Your task to perform on an android device: turn off airplane mode Image 0: 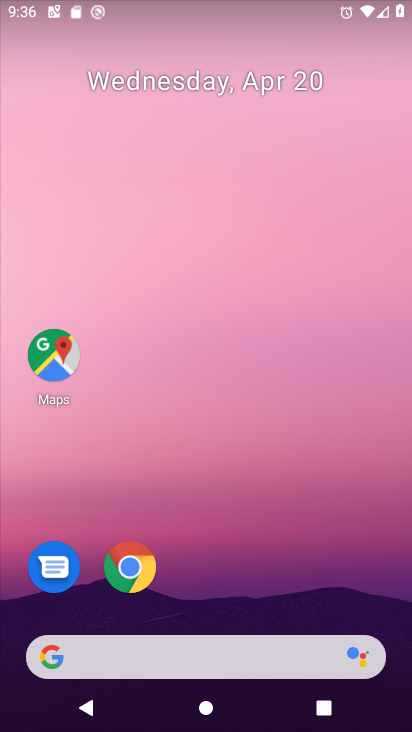
Step 0: drag from (324, 563) to (349, 154)
Your task to perform on an android device: turn off airplane mode Image 1: 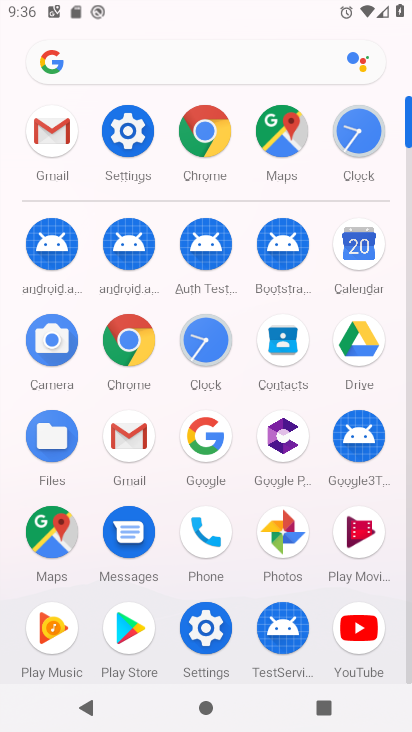
Step 1: click (130, 144)
Your task to perform on an android device: turn off airplane mode Image 2: 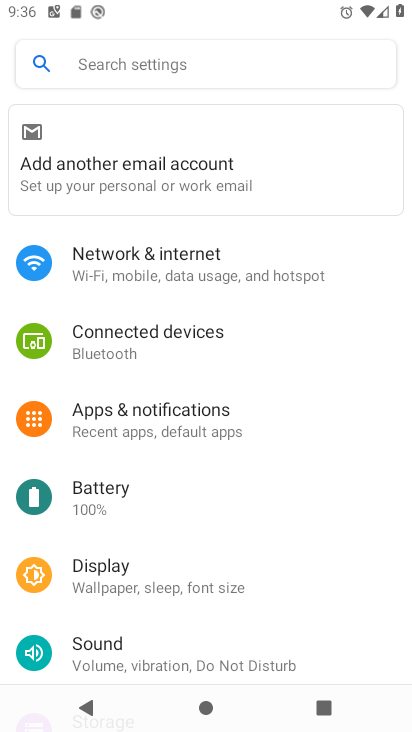
Step 2: drag from (334, 551) to (356, 361)
Your task to perform on an android device: turn off airplane mode Image 3: 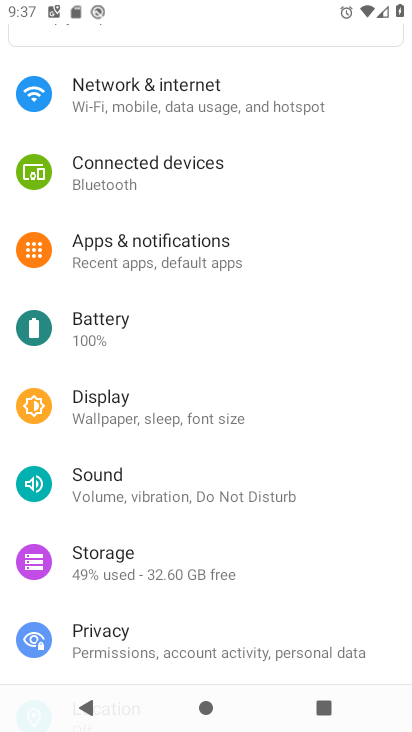
Step 3: drag from (348, 576) to (367, 344)
Your task to perform on an android device: turn off airplane mode Image 4: 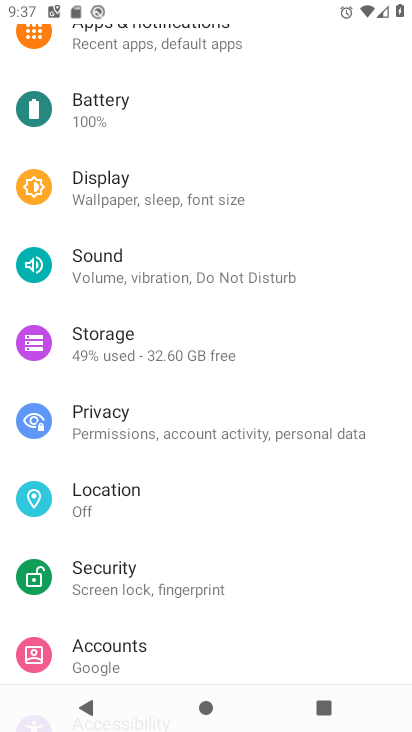
Step 4: drag from (340, 585) to (388, 349)
Your task to perform on an android device: turn off airplane mode Image 5: 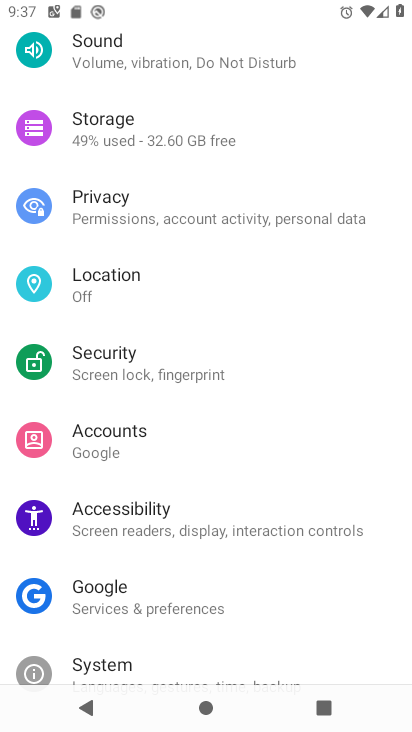
Step 5: drag from (354, 593) to (361, 378)
Your task to perform on an android device: turn off airplane mode Image 6: 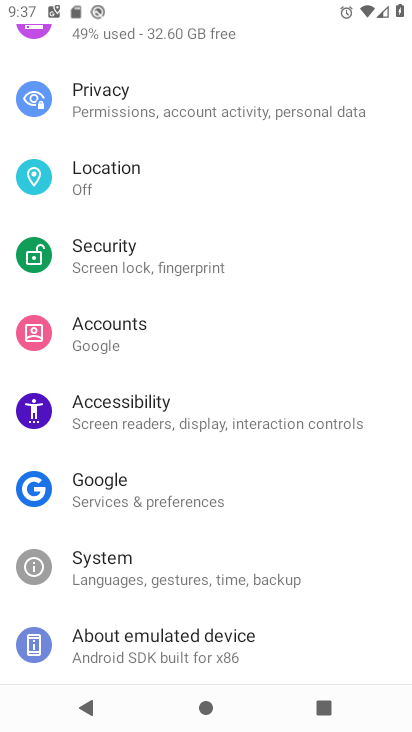
Step 6: drag from (355, 288) to (352, 518)
Your task to perform on an android device: turn off airplane mode Image 7: 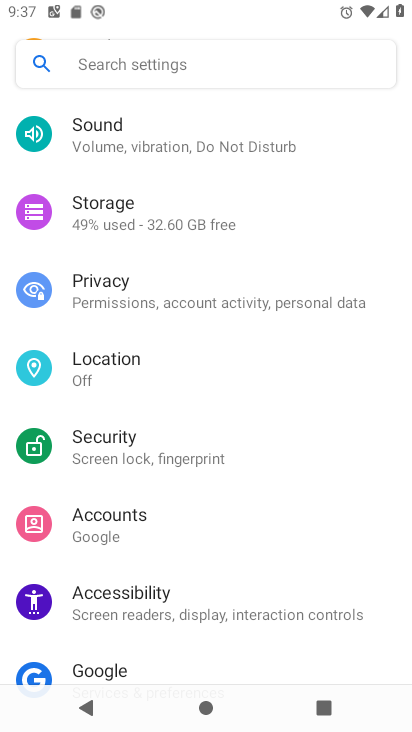
Step 7: drag from (374, 225) to (358, 448)
Your task to perform on an android device: turn off airplane mode Image 8: 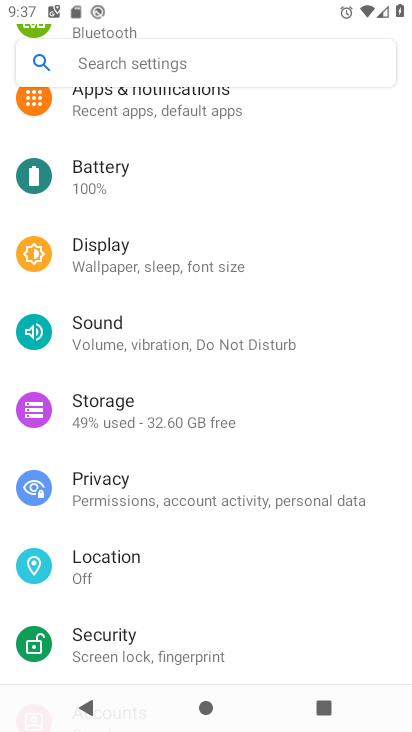
Step 8: drag from (369, 227) to (363, 428)
Your task to perform on an android device: turn off airplane mode Image 9: 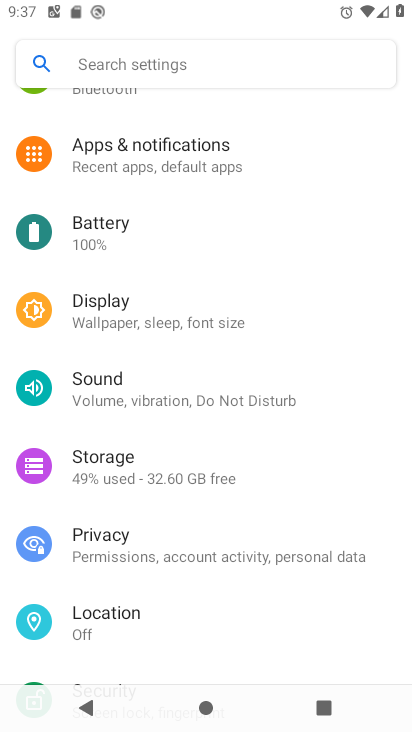
Step 9: drag from (351, 223) to (331, 421)
Your task to perform on an android device: turn off airplane mode Image 10: 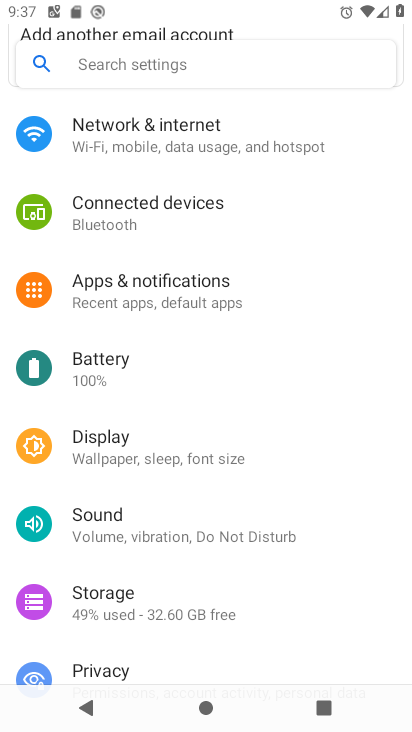
Step 10: drag from (343, 225) to (321, 389)
Your task to perform on an android device: turn off airplane mode Image 11: 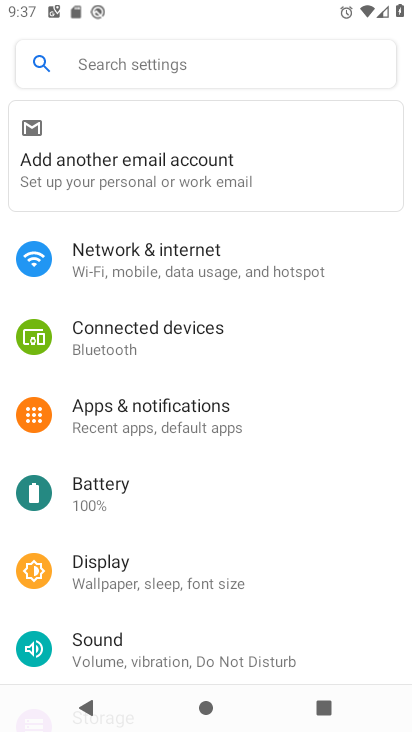
Step 11: click (235, 254)
Your task to perform on an android device: turn off airplane mode Image 12: 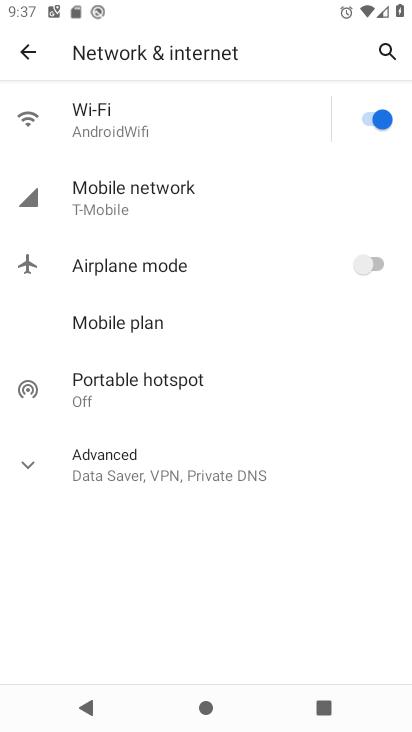
Step 12: task complete